Your task to perform on an android device: Do I have any events this weekend? Image 0: 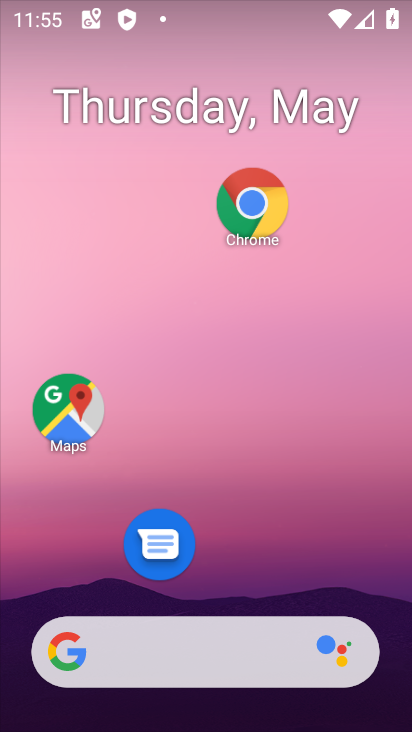
Step 0: click (193, 658)
Your task to perform on an android device: Do I have any events this weekend? Image 1: 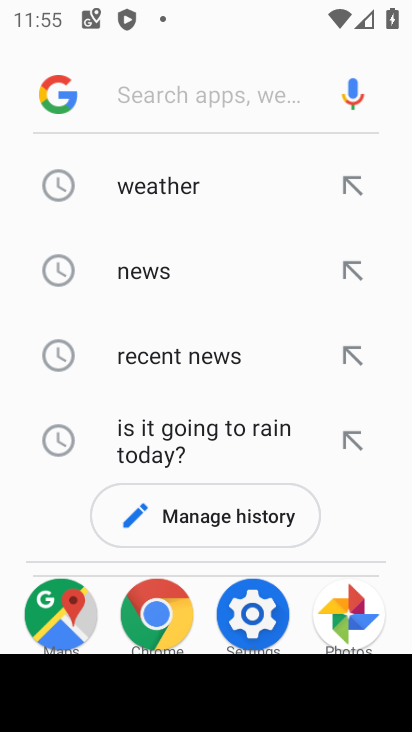
Step 1: type "events this weekend?"
Your task to perform on an android device: Do I have any events this weekend? Image 2: 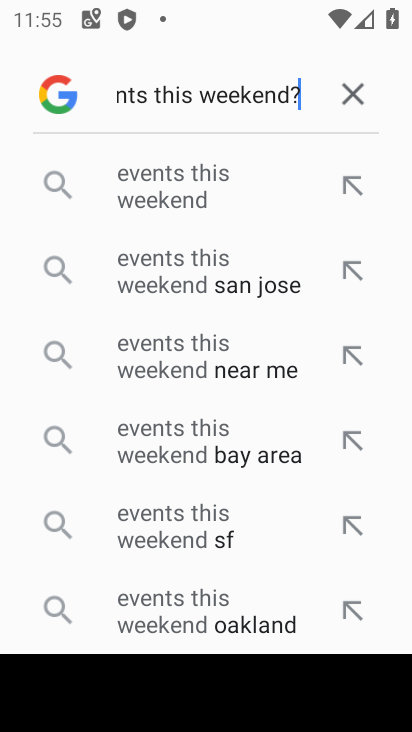
Step 2: type ""
Your task to perform on an android device: Do I have any events this weekend? Image 3: 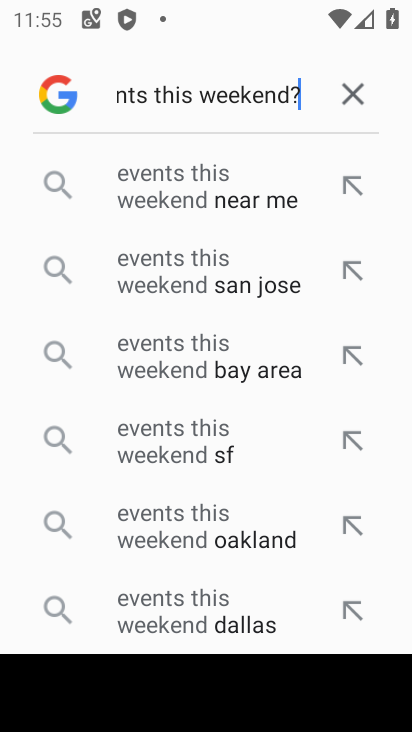
Step 3: click (186, 181)
Your task to perform on an android device: Do I have any events this weekend? Image 4: 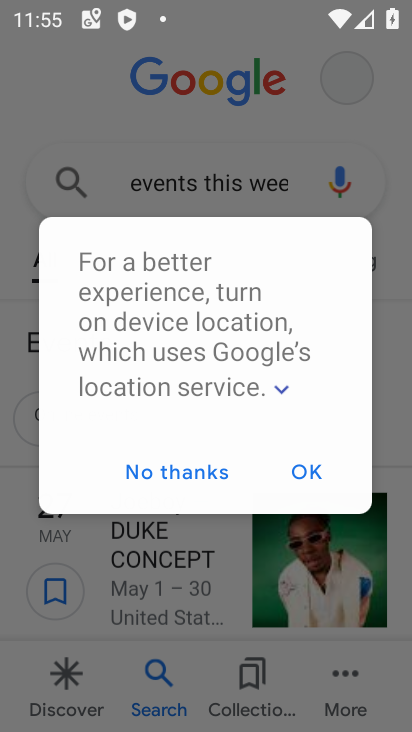
Step 4: task complete